Your task to perform on an android device: Go to settings Image 0: 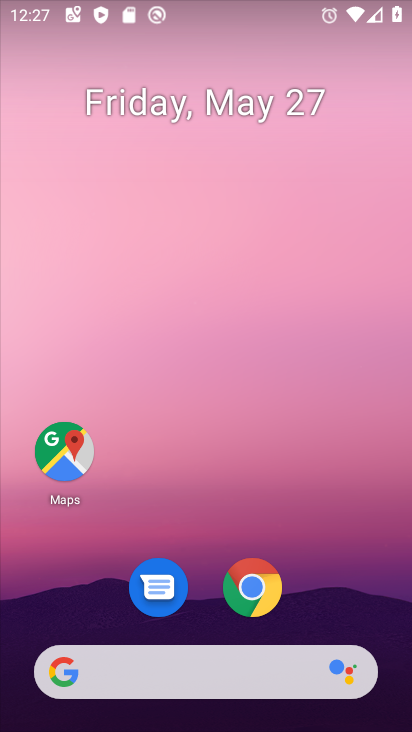
Step 0: drag from (256, 656) to (276, 126)
Your task to perform on an android device: Go to settings Image 1: 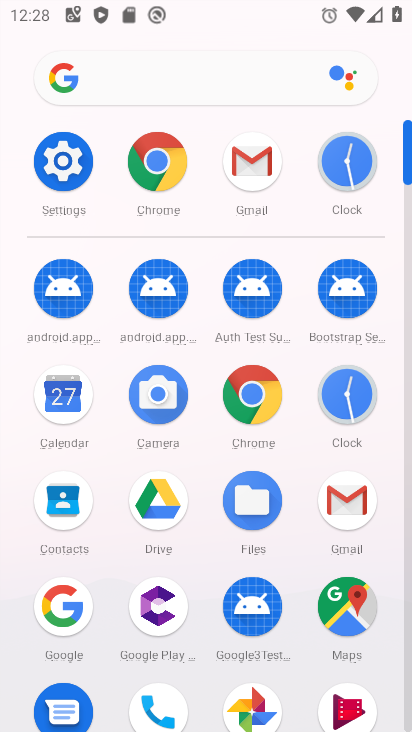
Step 1: click (73, 157)
Your task to perform on an android device: Go to settings Image 2: 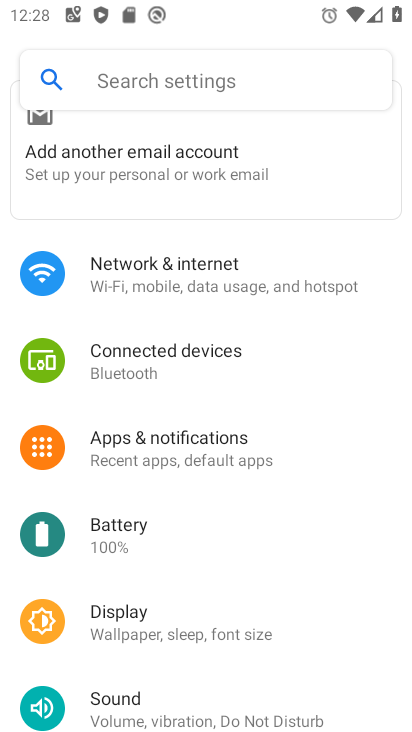
Step 2: task complete